Your task to perform on an android device: What's the weather going to be this weekend? Image 0: 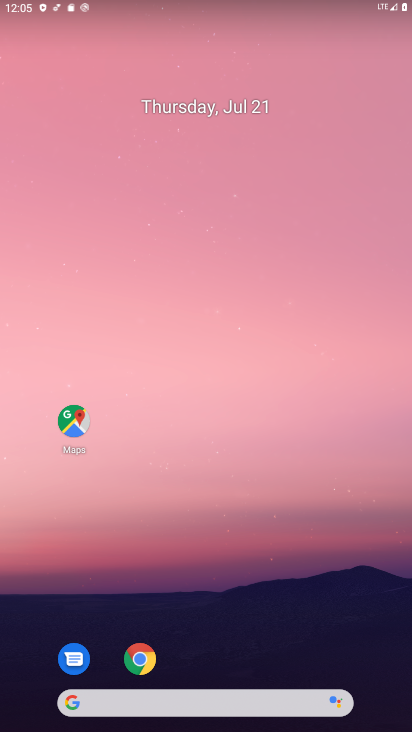
Step 0: click (177, 697)
Your task to perform on an android device: What's the weather going to be this weekend? Image 1: 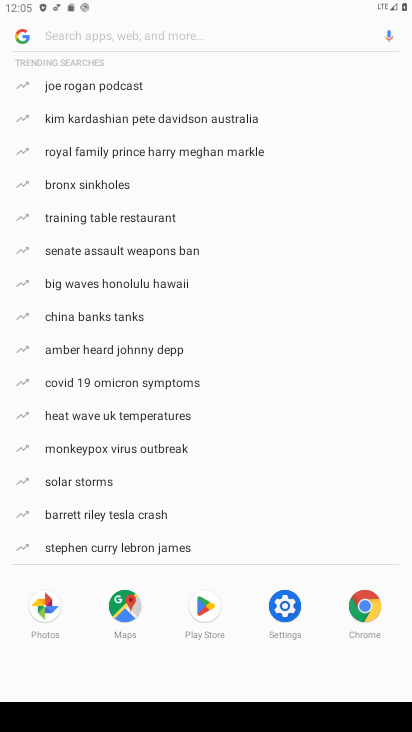
Step 1: type "wheather"
Your task to perform on an android device: What's the weather going to be this weekend? Image 2: 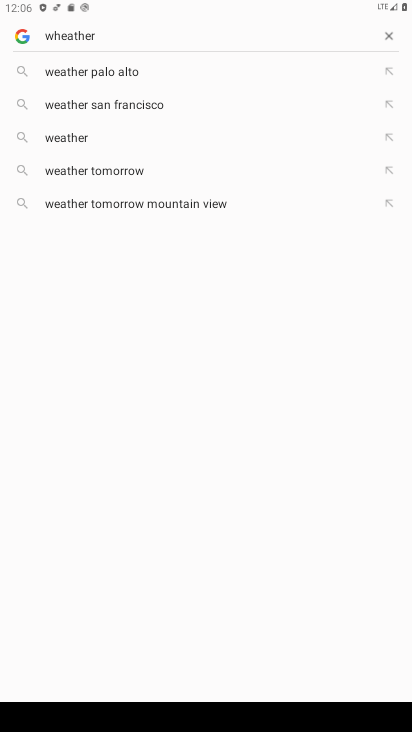
Step 2: click (82, 72)
Your task to perform on an android device: What's the weather going to be this weekend? Image 3: 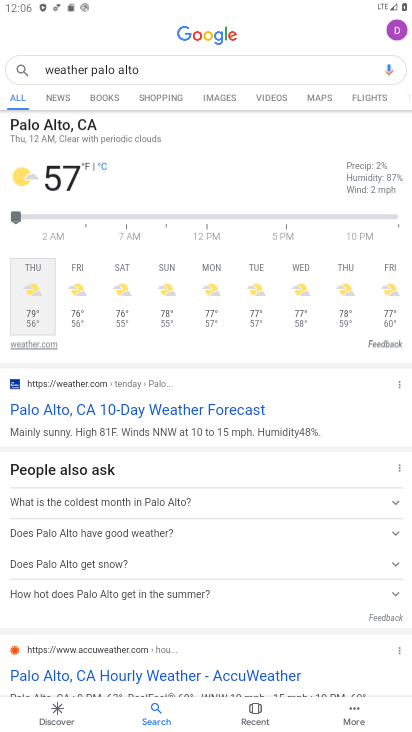
Step 3: click (36, 343)
Your task to perform on an android device: What's the weather going to be this weekend? Image 4: 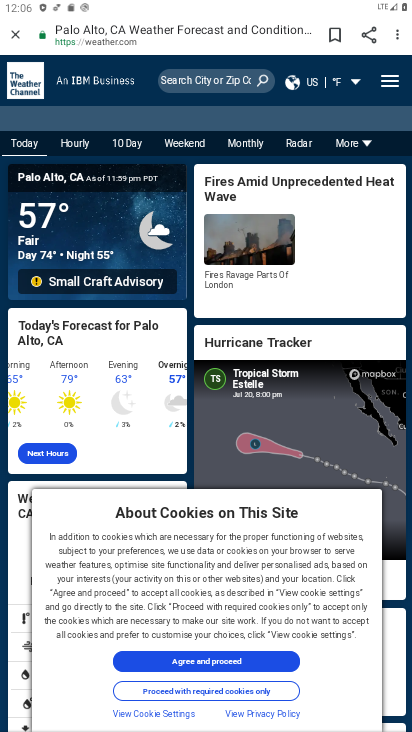
Step 4: click (171, 145)
Your task to perform on an android device: What's the weather going to be this weekend? Image 5: 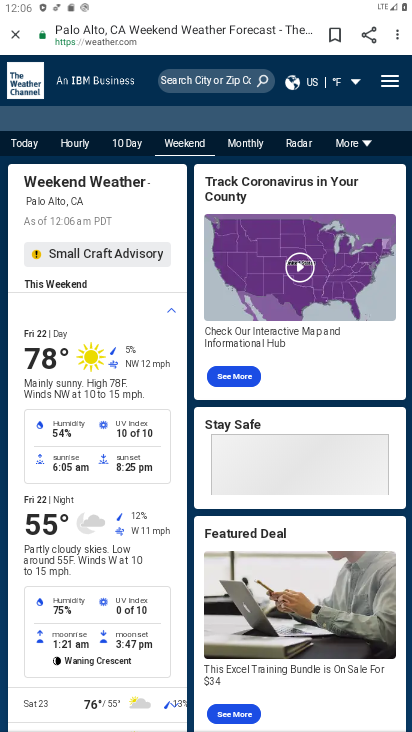
Step 5: task complete